Your task to perform on an android device: Go to Google Image 0: 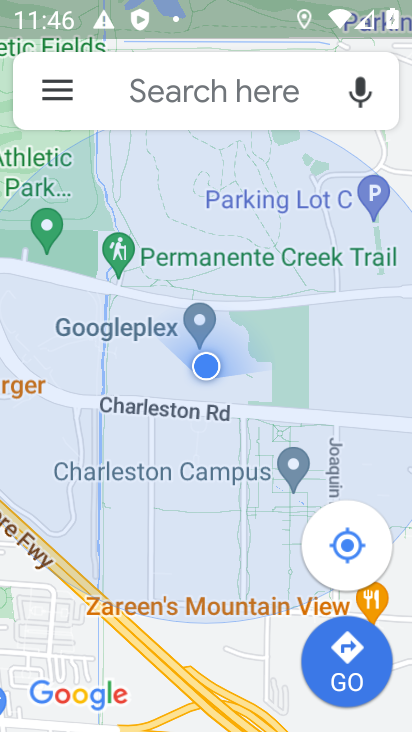
Step 0: press home button
Your task to perform on an android device: Go to Google Image 1: 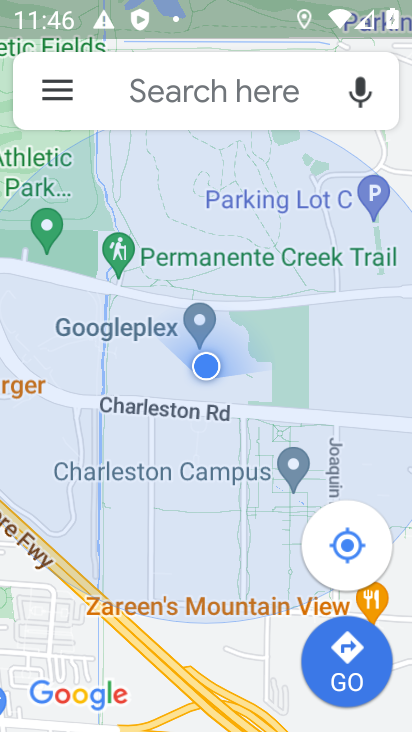
Step 1: press home button
Your task to perform on an android device: Go to Google Image 2: 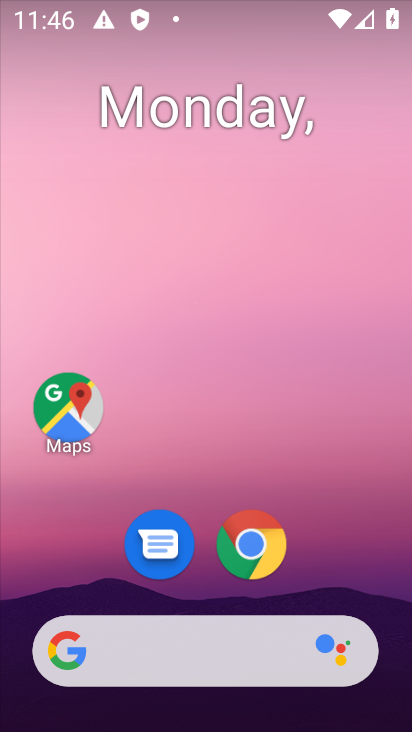
Step 2: drag from (345, 507) to (345, 52)
Your task to perform on an android device: Go to Google Image 3: 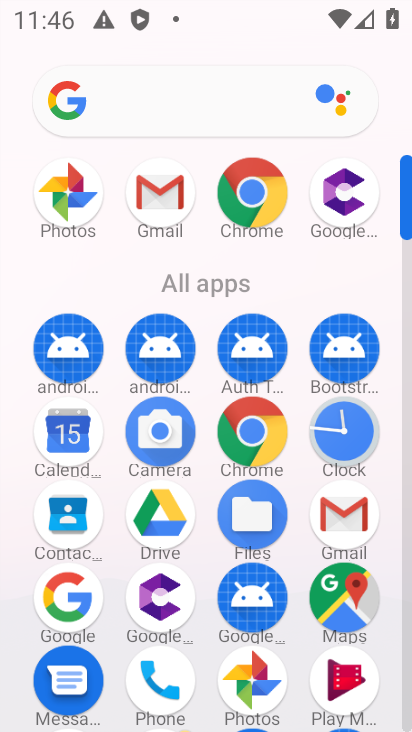
Step 3: click (84, 586)
Your task to perform on an android device: Go to Google Image 4: 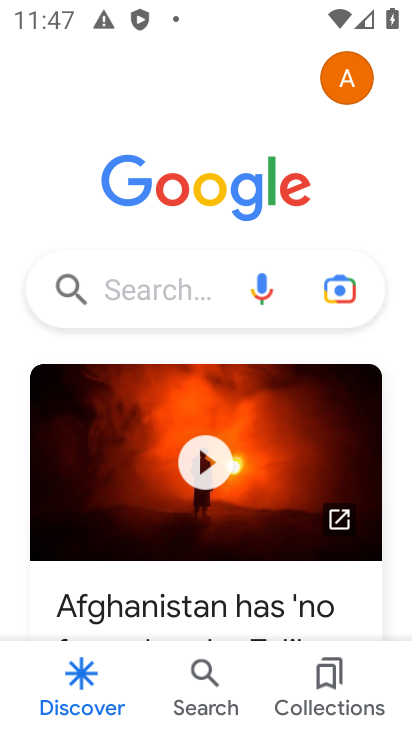
Step 4: task complete